Your task to perform on an android device: Open my contact list Image 0: 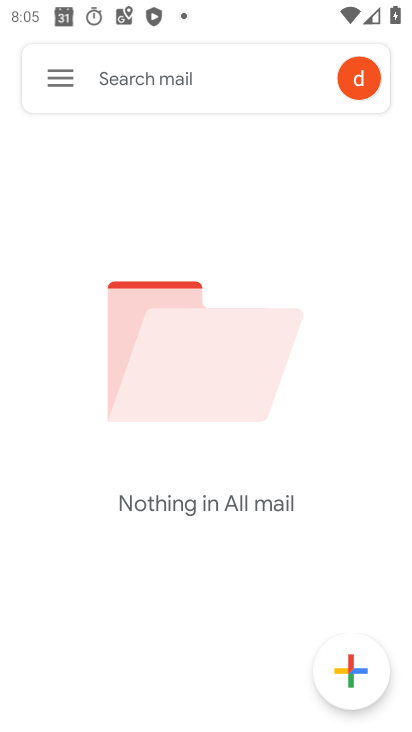
Step 0: press home button
Your task to perform on an android device: Open my contact list Image 1: 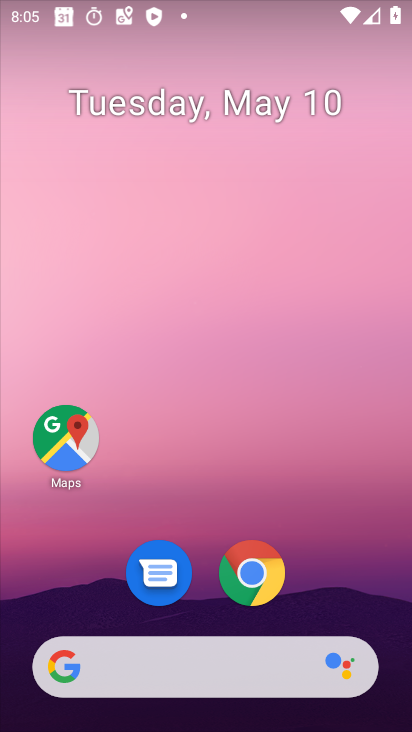
Step 1: drag from (345, 572) to (344, 220)
Your task to perform on an android device: Open my contact list Image 2: 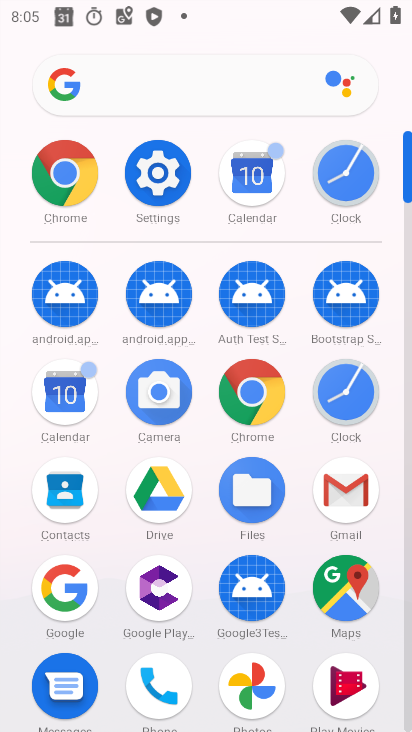
Step 2: drag from (198, 638) to (212, 346)
Your task to perform on an android device: Open my contact list Image 3: 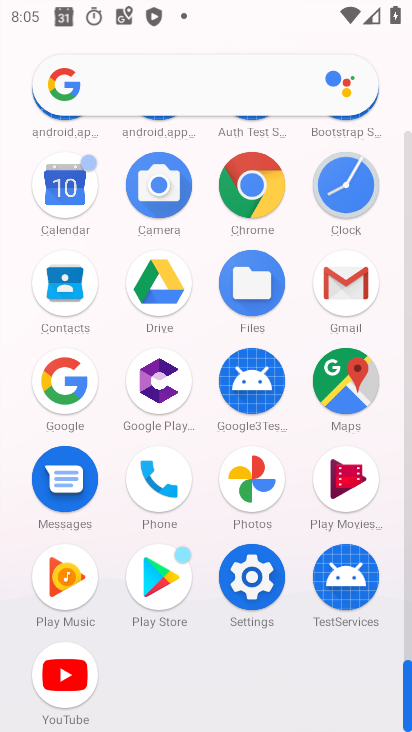
Step 3: click (38, 299)
Your task to perform on an android device: Open my contact list Image 4: 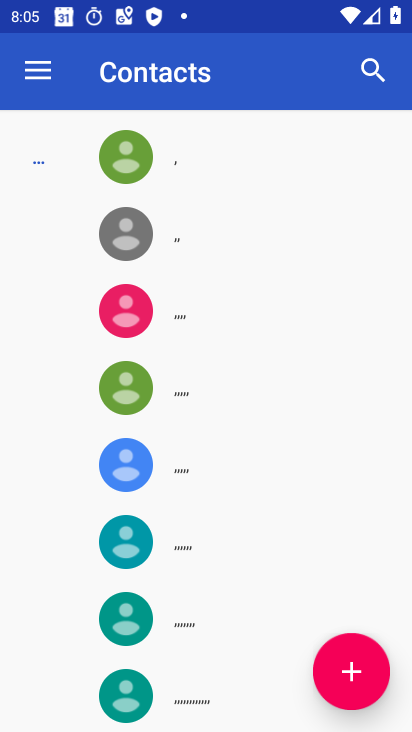
Step 4: task complete